Your task to perform on an android device: Open battery settings Image 0: 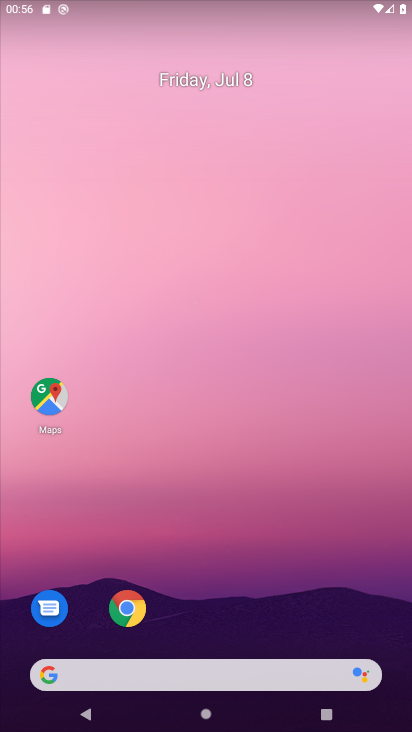
Step 0: drag from (216, 513) to (220, 183)
Your task to perform on an android device: Open battery settings Image 1: 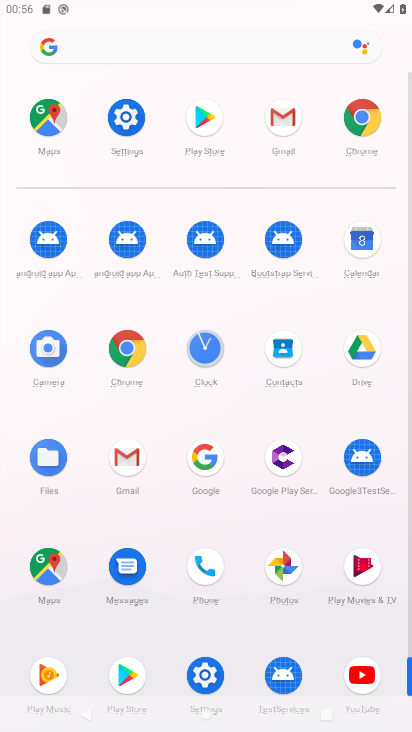
Step 1: click (125, 120)
Your task to perform on an android device: Open battery settings Image 2: 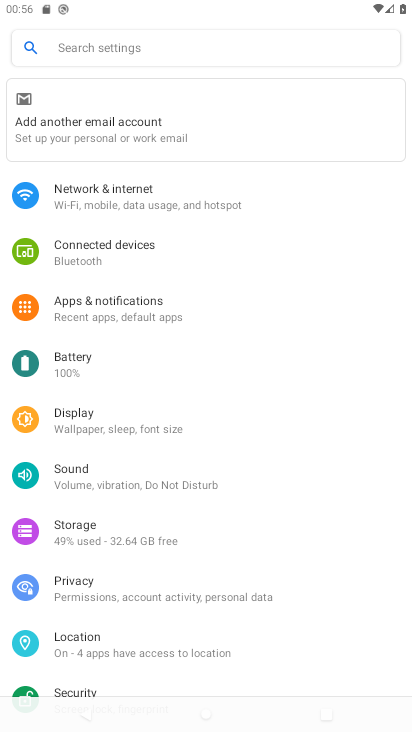
Step 2: click (95, 350)
Your task to perform on an android device: Open battery settings Image 3: 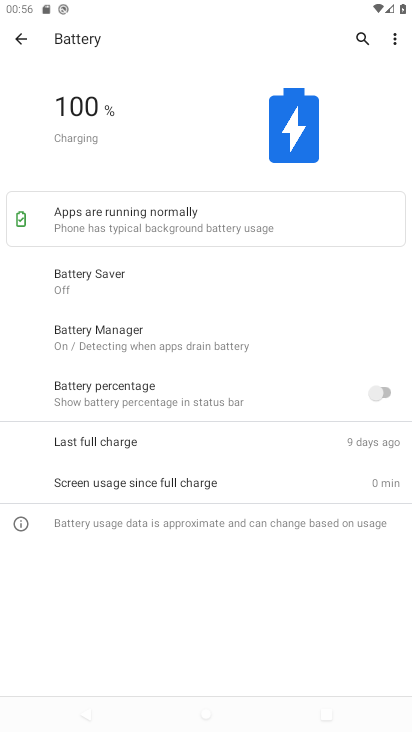
Step 3: task complete